Your task to perform on an android device: Open Google Image 0: 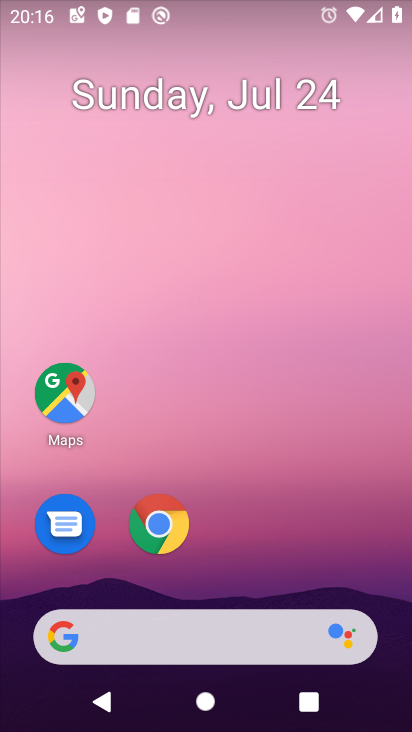
Step 0: drag from (274, 545) to (276, 46)
Your task to perform on an android device: Open Google Image 1: 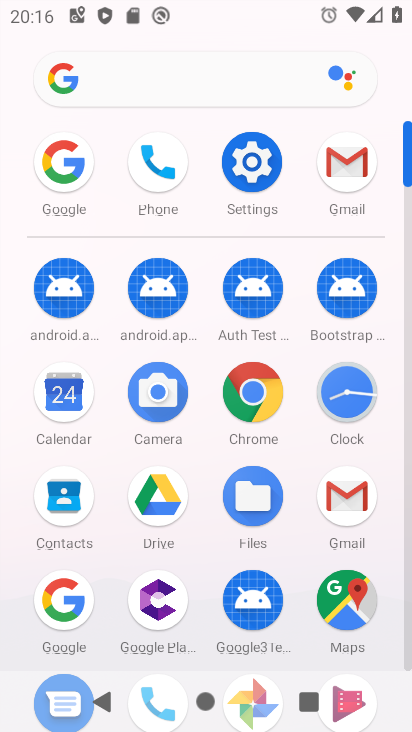
Step 1: click (65, 160)
Your task to perform on an android device: Open Google Image 2: 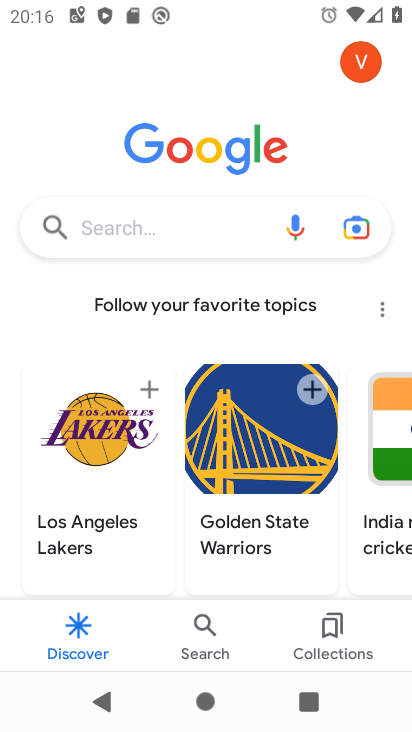
Step 2: task complete